Your task to perform on an android device: Go to internet settings Image 0: 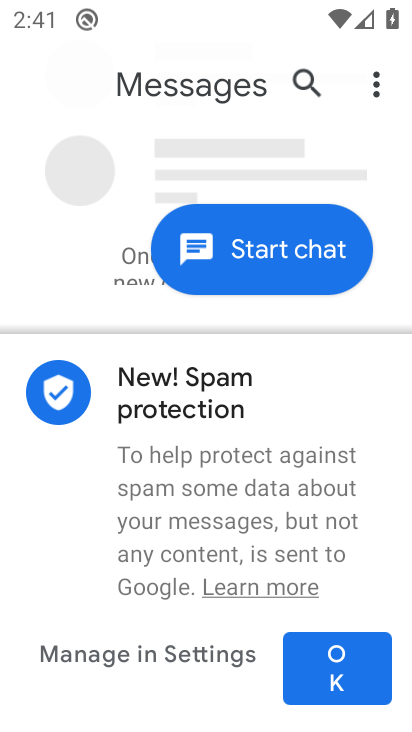
Step 0: press home button
Your task to perform on an android device: Go to internet settings Image 1: 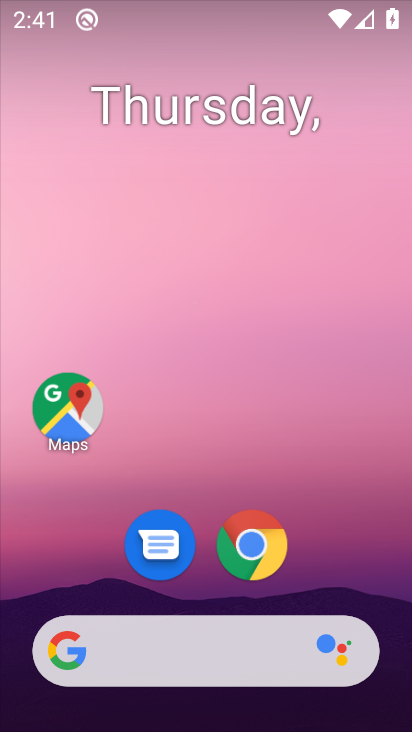
Step 1: press home button
Your task to perform on an android device: Go to internet settings Image 2: 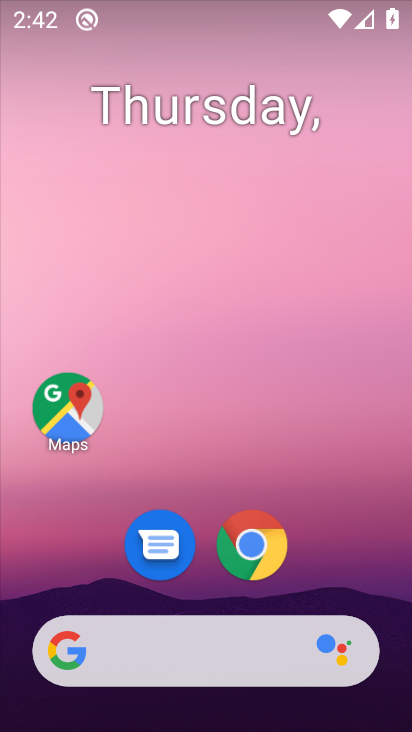
Step 2: drag from (226, 616) to (272, 56)
Your task to perform on an android device: Go to internet settings Image 3: 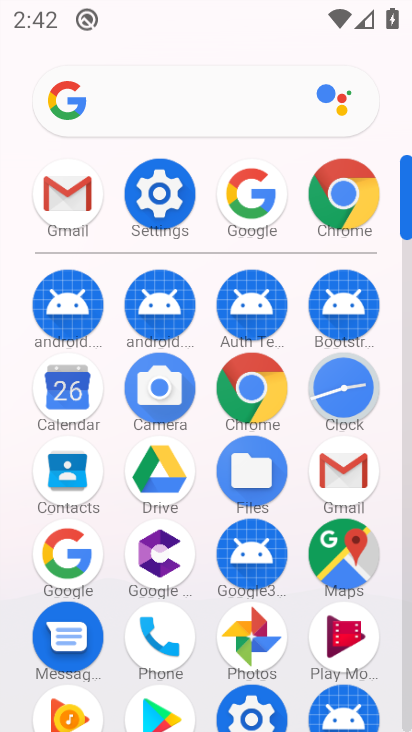
Step 3: click (160, 195)
Your task to perform on an android device: Go to internet settings Image 4: 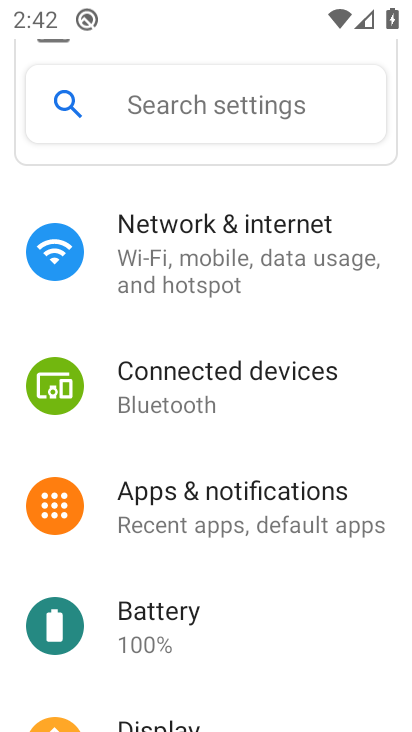
Step 4: click (173, 259)
Your task to perform on an android device: Go to internet settings Image 5: 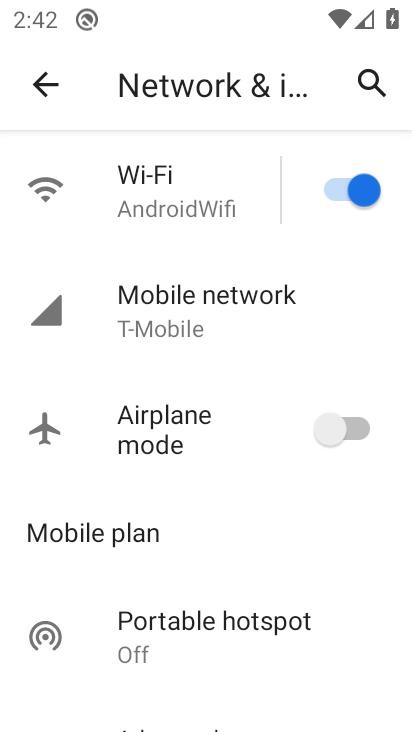
Step 5: drag from (193, 680) to (183, 330)
Your task to perform on an android device: Go to internet settings Image 6: 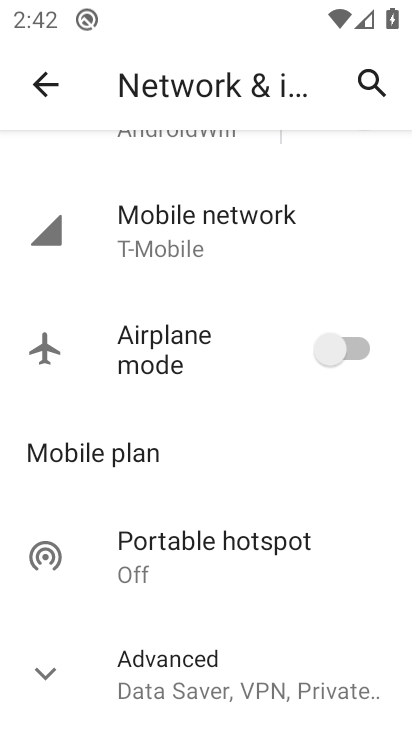
Step 6: click (185, 662)
Your task to perform on an android device: Go to internet settings Image 7: 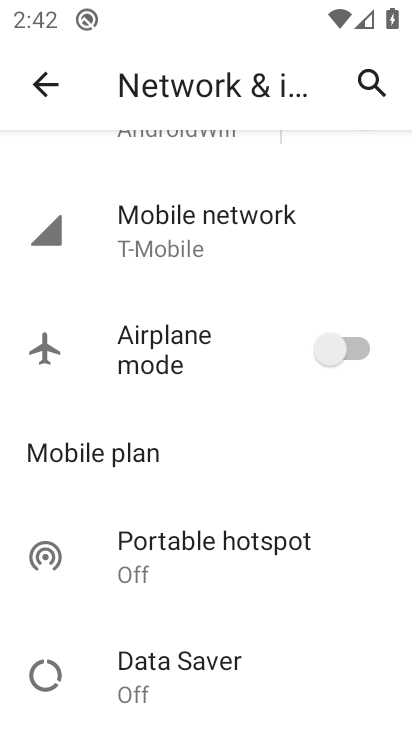
Step 7: task complete